Your task to perform on an android device: turn off wifi Image 0: 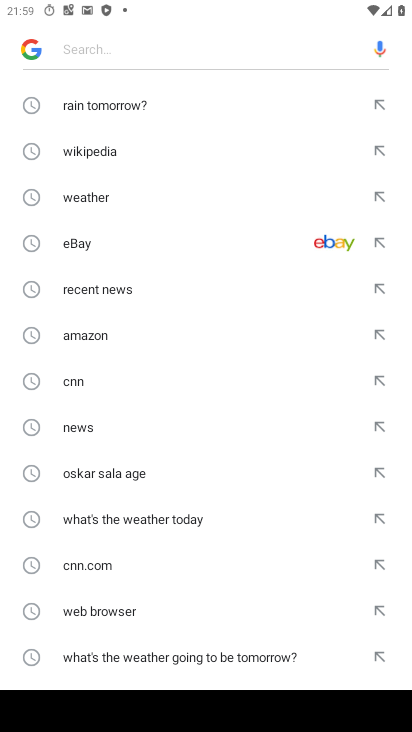
Step 0: press home button
Your task to perform on an android device: turn off wifi Image 1: 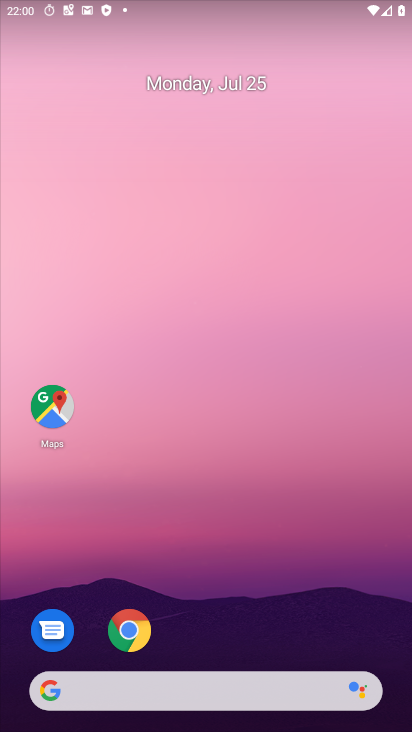
Step 1: drag from (218, 4) to (246, 346)
Your task to perform on an android device: turn off wifi Image 2: 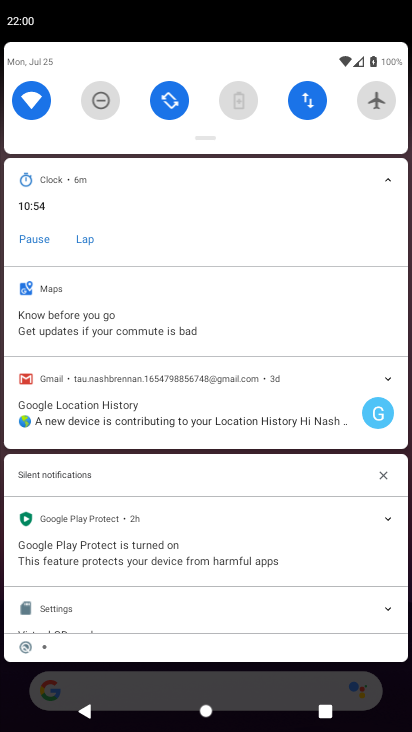
Step 2: click (25, 106)
Your task to perform on an android device: turn off wifi Image 3: 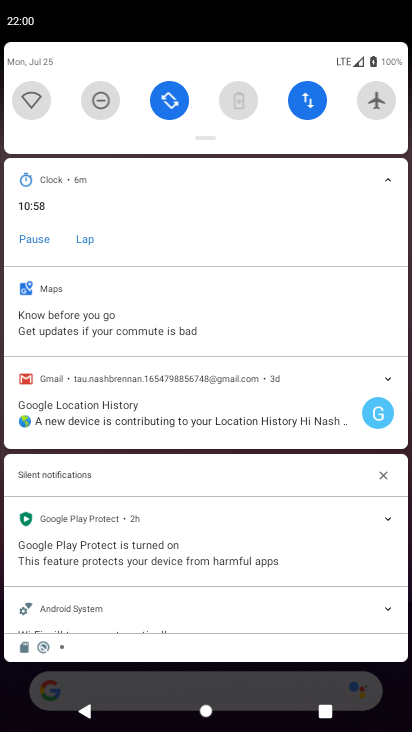
Step 3: task complete